Your task to perform on an android device: Open Yahoo.com Image 0: 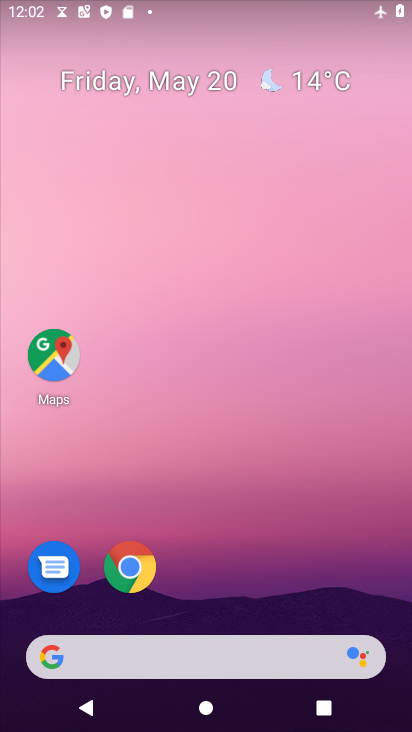
Step 0: drag from (275, 554) to (268, 34)
Your task to perform on an android device: Open Yahoo.com Image 1: 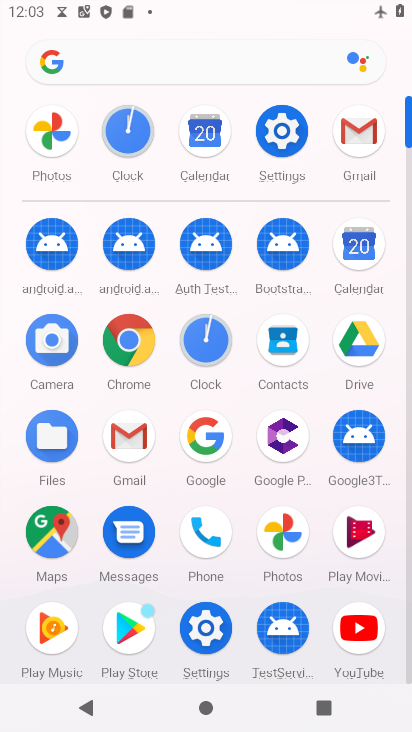
Step 1: click (140, 352)
Your task to perform on an android device: Open Yahoo.com Image 2: 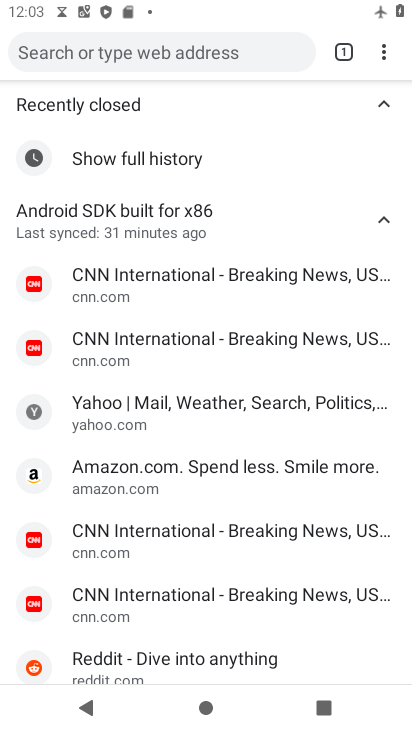
Step 2: click (174, 60)
Your task to perform on an android device: Open Yahoo.com Image 3: 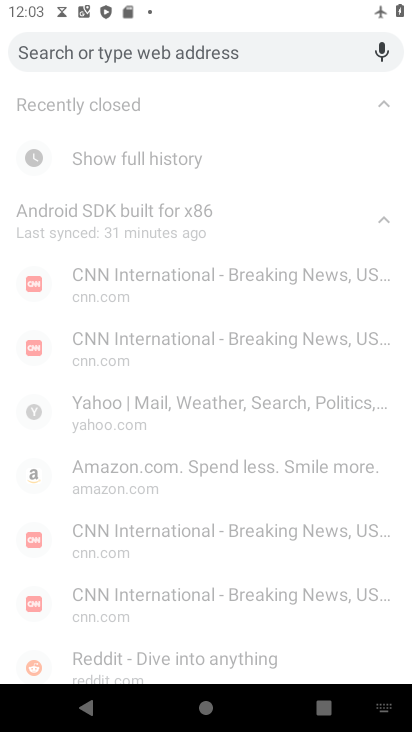
Step 3: type "yahoo"
Your task to perform on an android device: Open Yahoo.com Image 4: 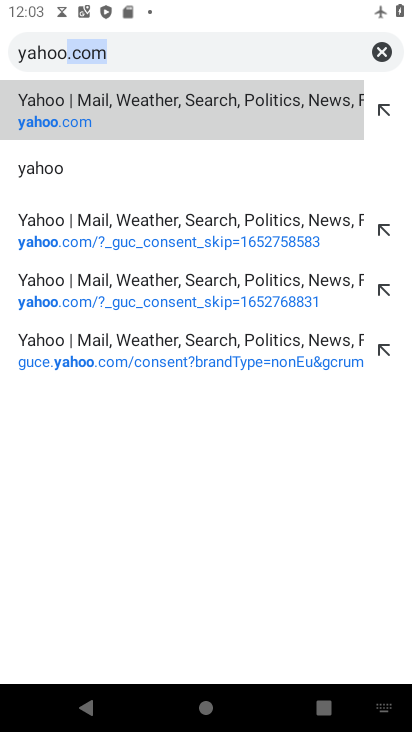
Step 4: click (37, 131)
Your task to perform on an android device: Open Yahoo.com Image 5: 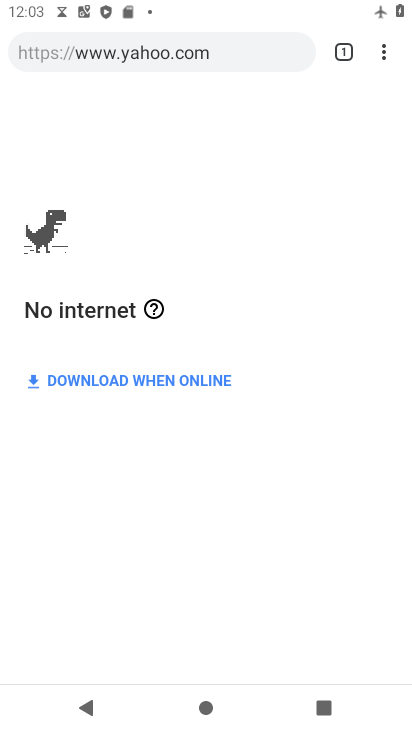
Step 5: task complete